Your task to perform on an android device: open chrome privacy settings Image 0: 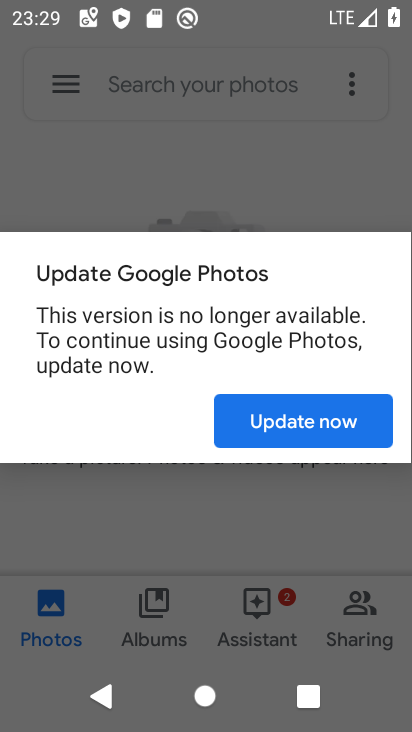
Step 0: press back button
Your task to perform on an android device: open chrome privacy settings Image 1: 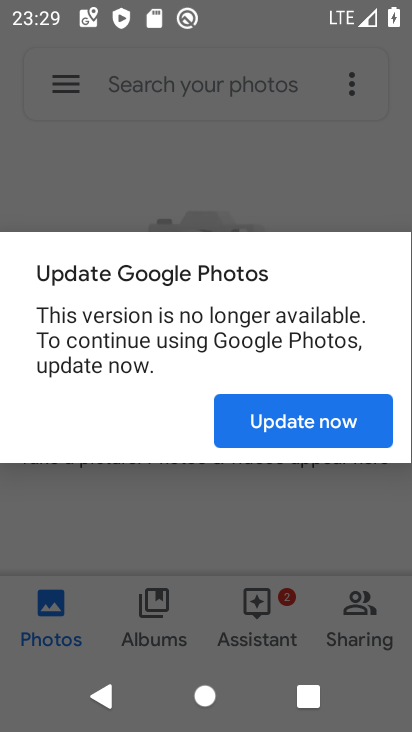
Step 1: press home button
Your task to perform on an android device: open chrome privacy settings Image 2: 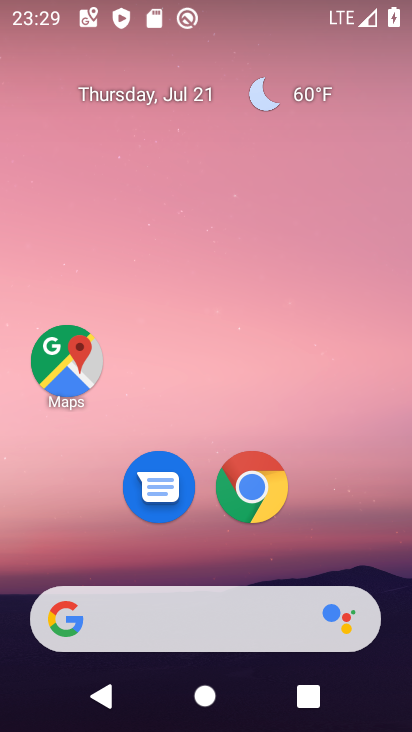
Step 2: click (265, 479)
Your task to perform on an android device: open chrome privacy settings Image 3: 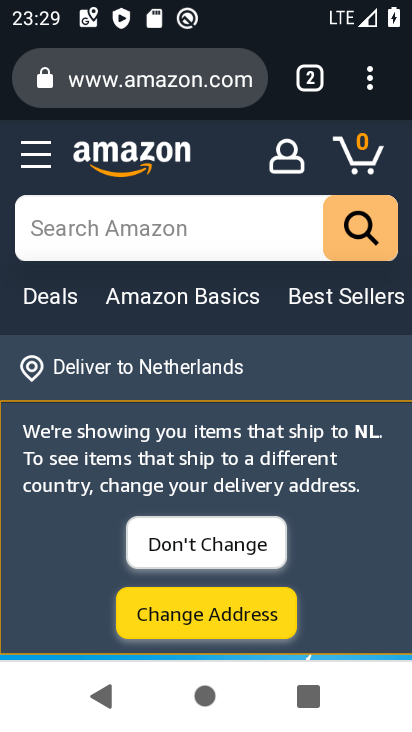
Step 3: drag from (366, 74) to (81, 551)
Your task to perform on an android device: open chrome privacy settings Image 4: 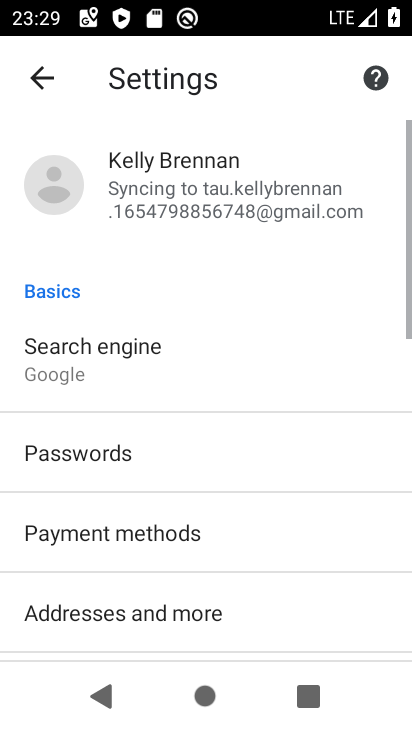
Step 4: drag from (131, 596) to (228, 13)
Your task to perform on an android device: open chrome privacy settings Image 5: 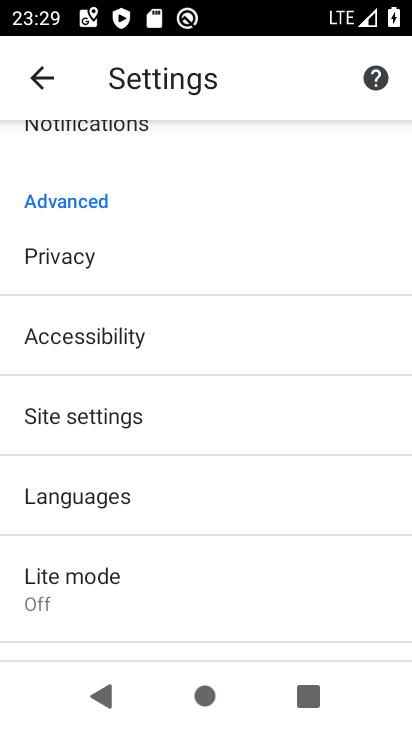
Step 5: click (78, 254)
Your task to perform on an android device: open chrome privacy settings Image 6: 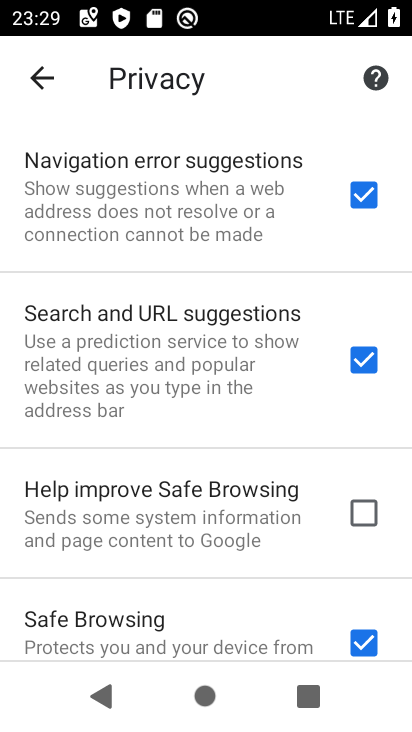
Step 6: task complete